Your task to perform on an android device: Show me recent news Image 0: 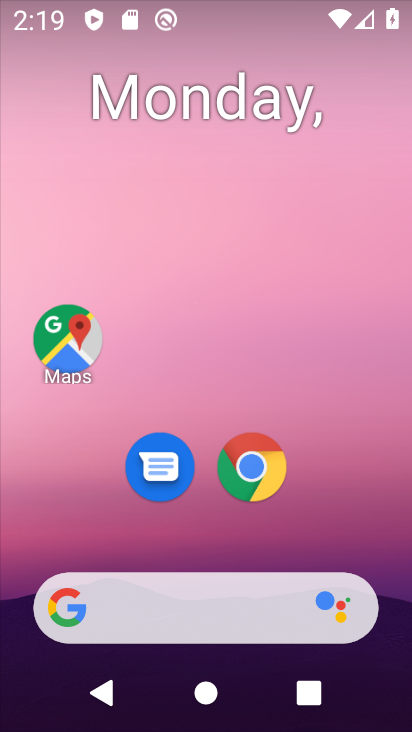
Step 0: drag from (398, 541) to (357, 175)
Your task to perform on an android device: Show me recent news Image 1: 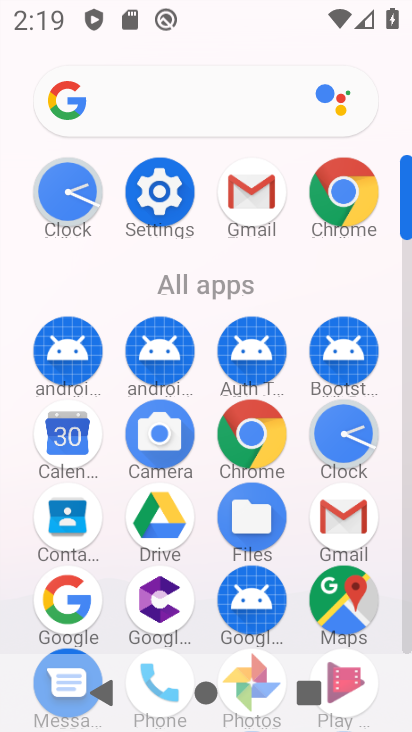
Step 1: click (236, 113)
Your task to perform on an android device: Show me recent news Image 2: 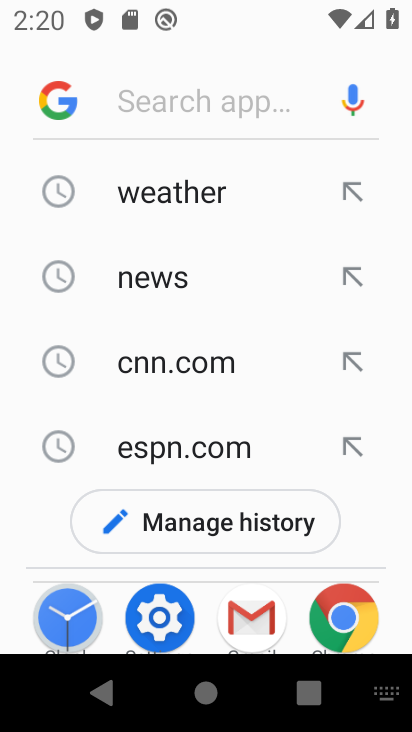
Step 2: type "recent news"
Your task to perform on an android device: Show me recent news Image 3: 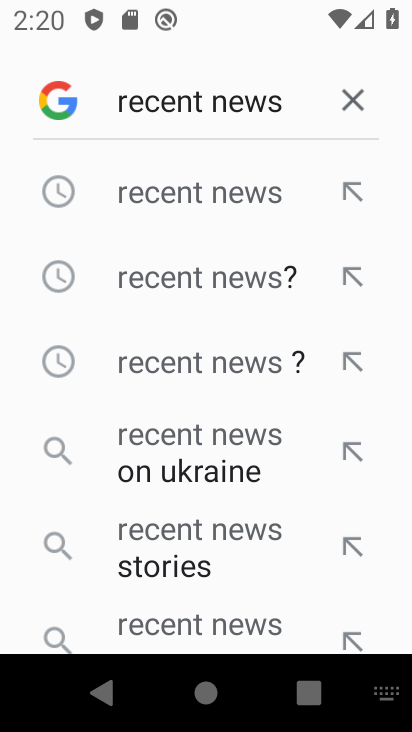
Step 3: click (261, 197)
Your task to perform on an android device: Show me recent news Image 4: 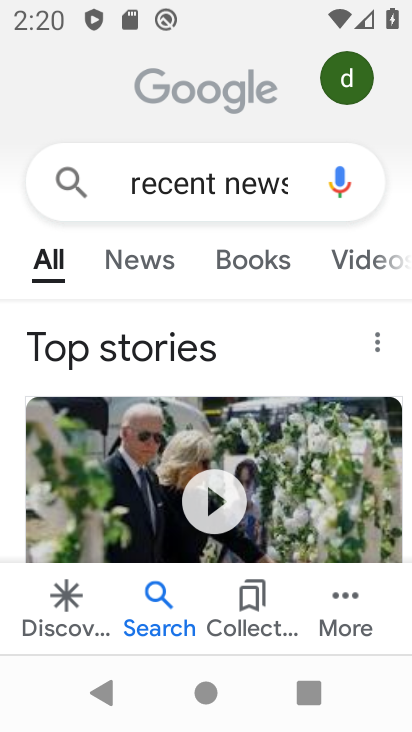
Step 4: task complete